Your task to perform on an android device: Go to CNN.com Image 0: 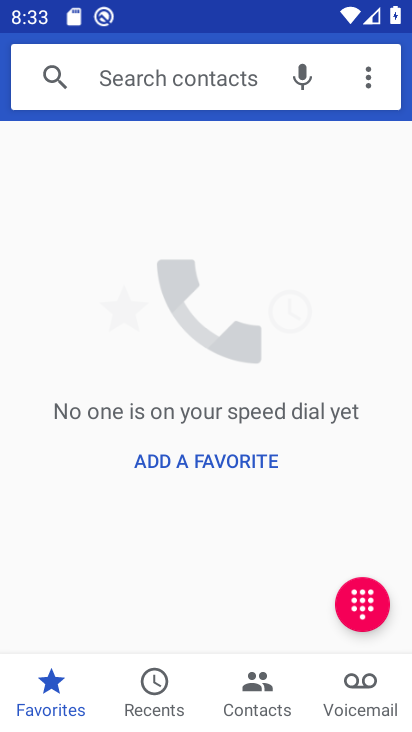
Step 0: press home button
Your task to perform on an android device: Go to CNN.com Image 1: 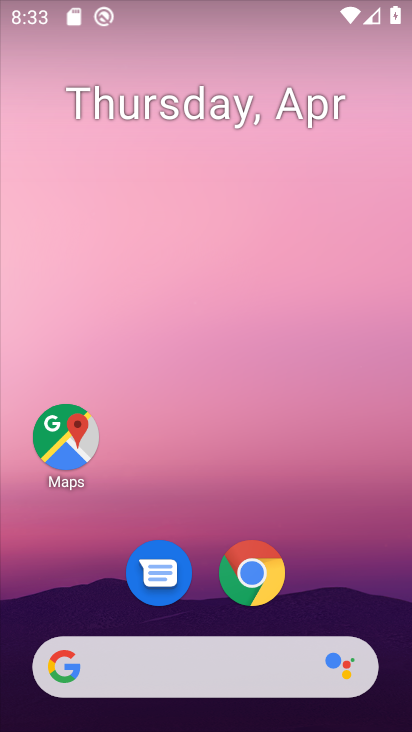
Step 1: click (256, 574)
Your task to perform on an android device: Go to CNN.com Image 2: 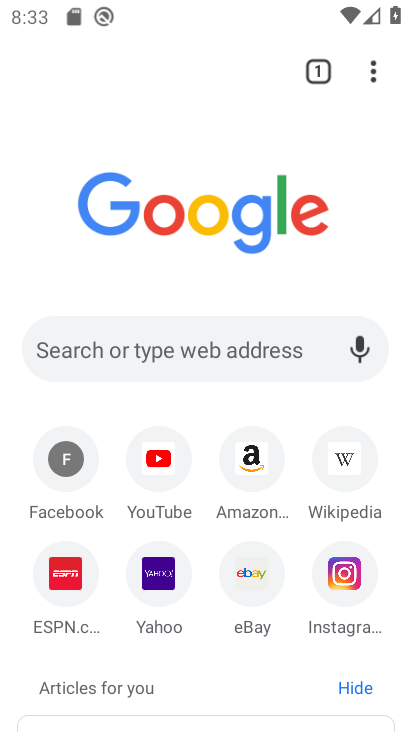
Step 2: click (176, 338)
Your task to perform on an android device: Go to CNN.com Image 3: 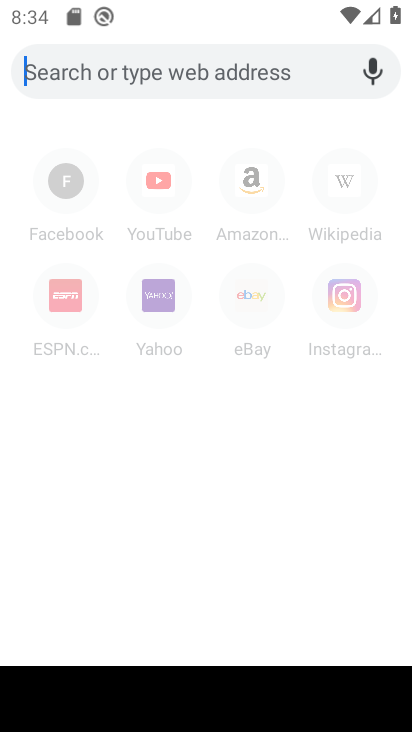
Step 3: type "CNN.com"
Your task to perform on an android device: Go to CNN.com Image 4: 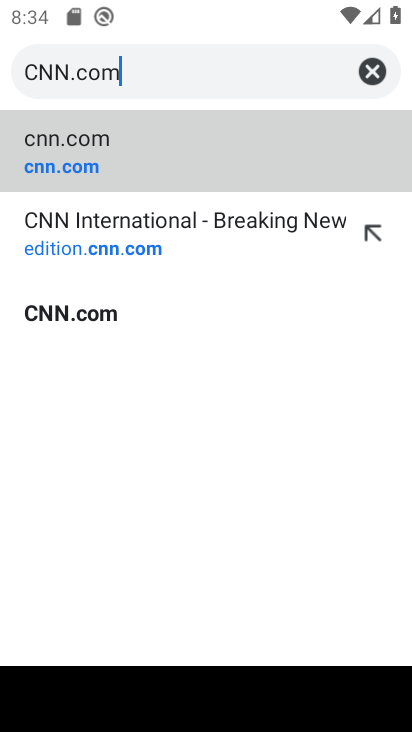
Step 4: click (109, 314)
Your task to perform on an android device: Go to CNN.com Image 5: 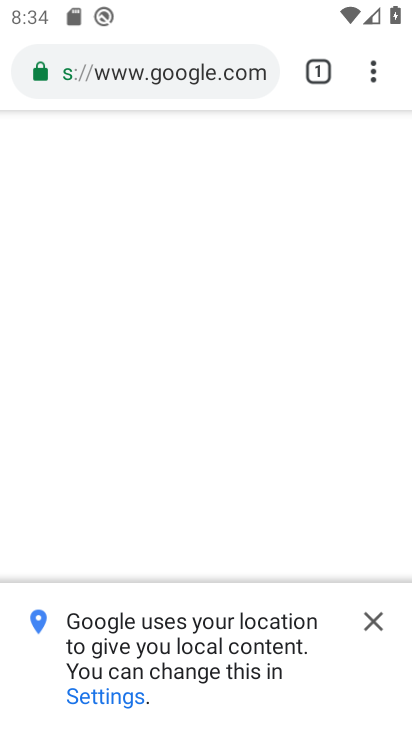
Step 5: click (377, 621)
Your task to perform on an android device: Go to CNN.com Image 6: 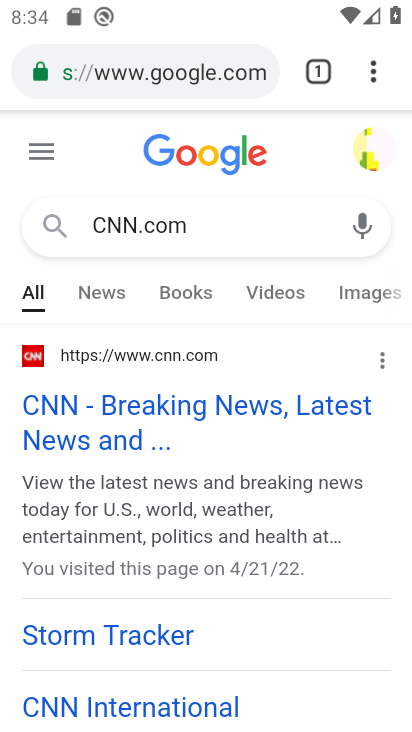
Step 6: task complete